Your task to perform on an android device: Open location settings Image 0: 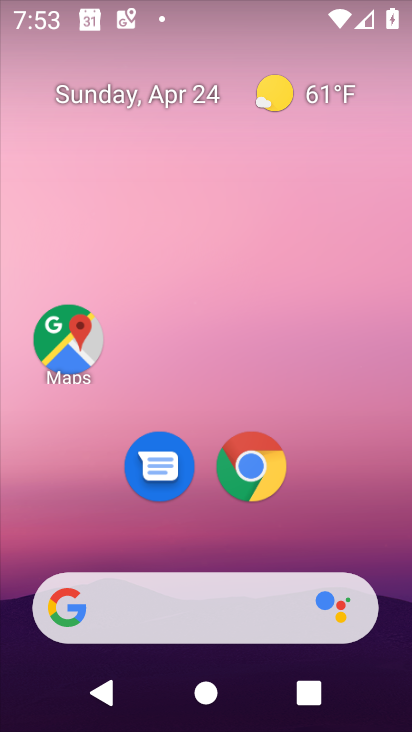
Step 0: drag from (204, 542) to (195, 43)
Your task to perform on an android device: Open location settings Image 1: 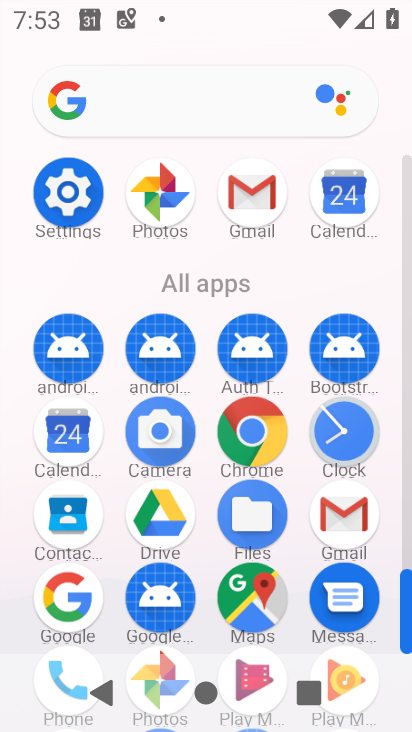
Step 1: click (73, 192)
Your task to perform on an android device: Open location settings Image 2: 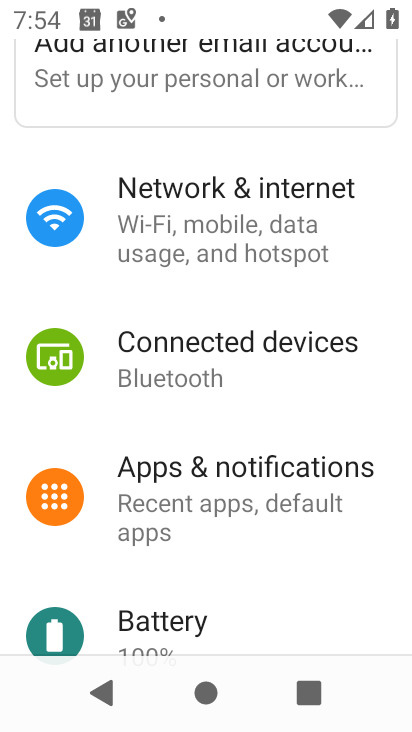
Step 2: drag from (202, 530) to (239, 36)
Your task to perform on an android device: Open location settings Image 3: 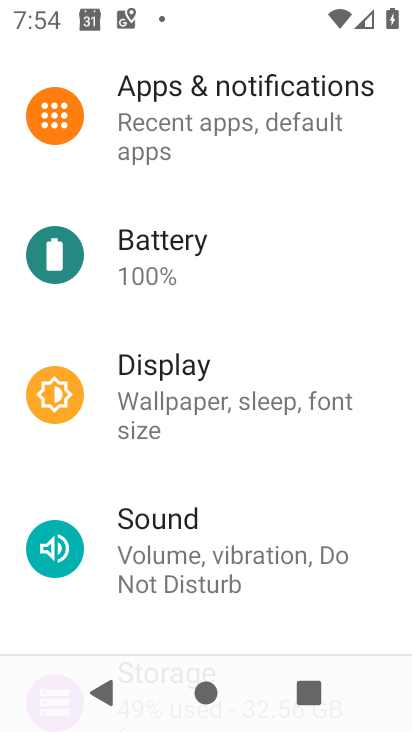
Step 3: drag from (181, 494) to (289, 2)
Your task to perform on an android device: Open location settings Image 4: 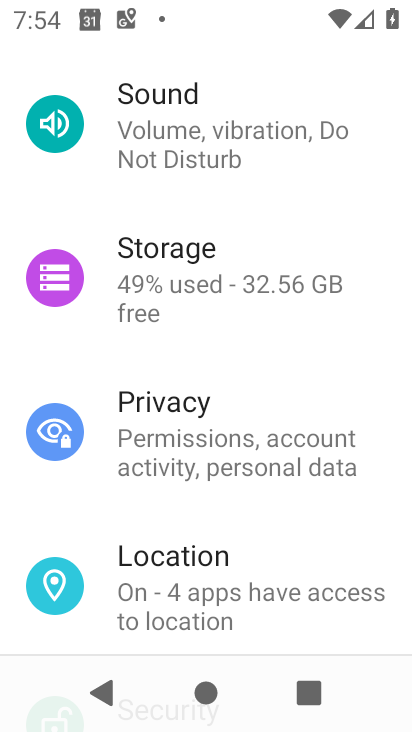
Step 4: click (175, 585)
Your task to perform on an android device: Open location settings Image 5: 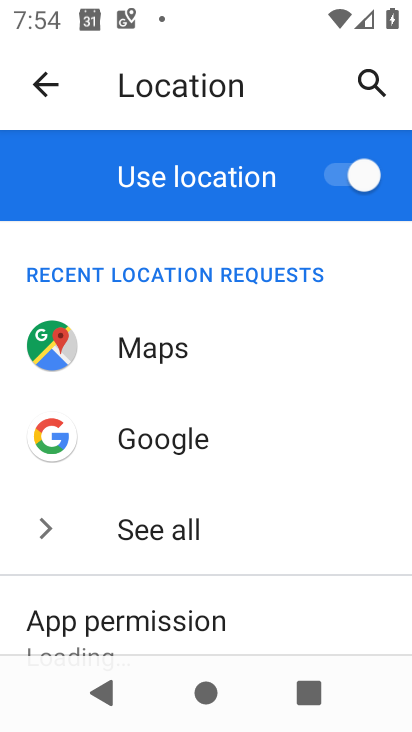
Step 5: drag from (214, 592) to (277, 148)
Your task to perform on an android device: Open location settings Image 6: 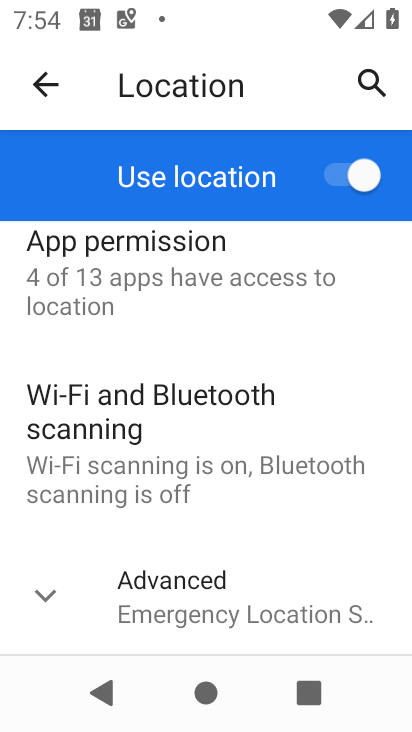
Step 6: click (140, 586)
Your task to perform on an android device: Open location settings Image 7: 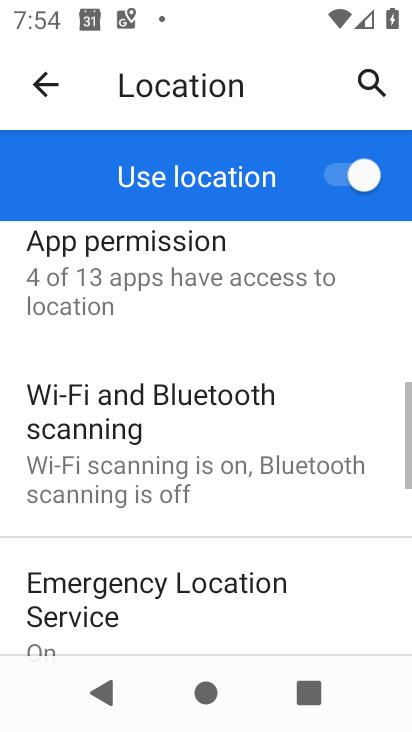
Step 7: task complete